Your task to perform on an android device: check battery use Image 0: 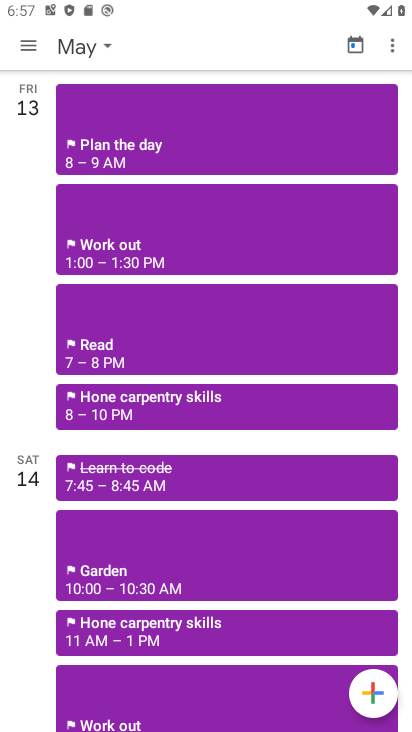
Step 0: press home button
Your task to perform on an android device: check battery use Image 1: 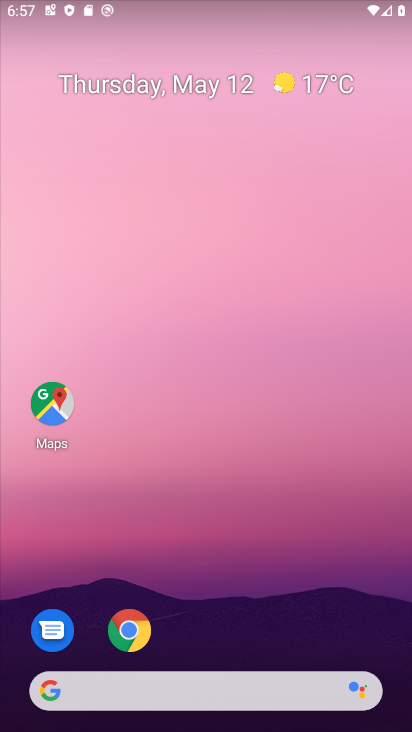
Step 1: drag from (391, 670) to (248, 14)
Your task to perform on an android device: check battery use Image 2: 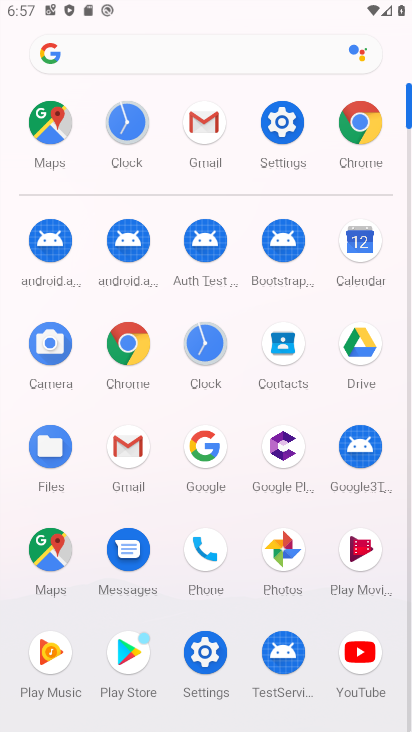
Step 2: click (274, 137)
Your task to perform on an android device: check battery use Image 3: 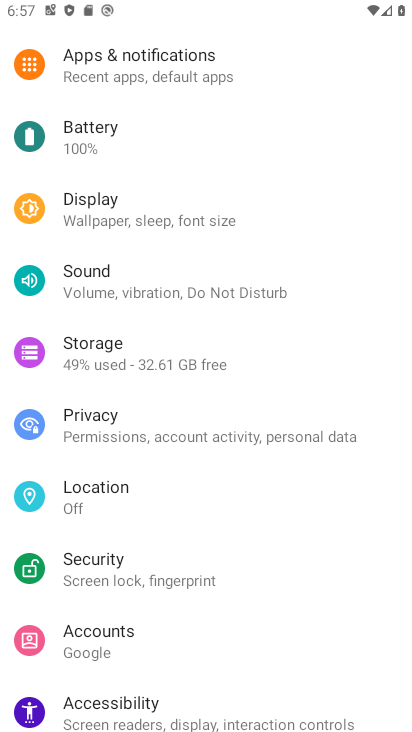
Step 3: click (146, 130)
Your task to perform on an android device: check battery use Image 4: 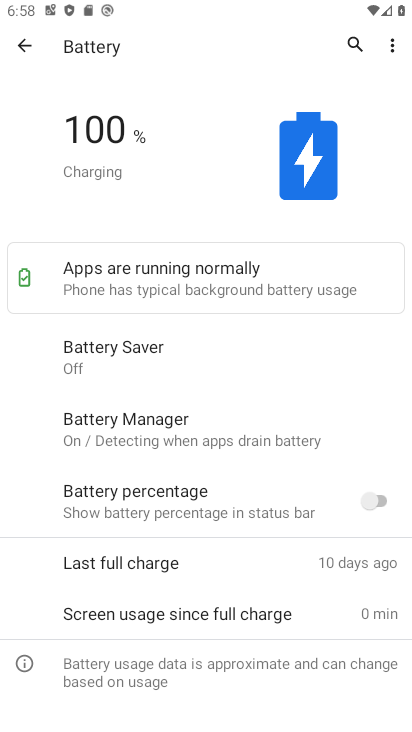
Step 4: task complete